Your task to perform on an android device: Is it going to rain tomorrow? Image 0: 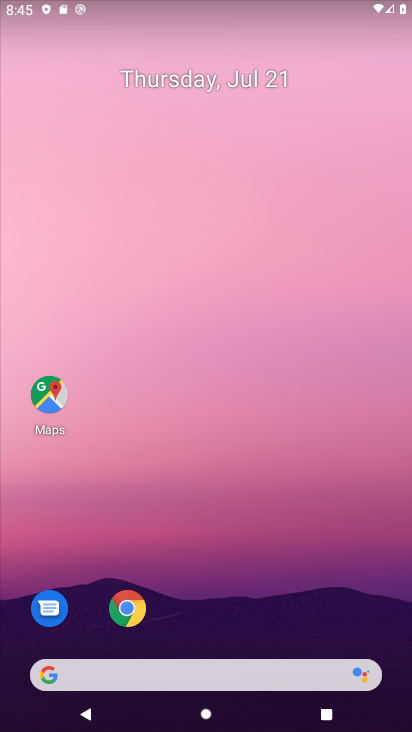
Step 0: click (130, 603)
Your task to perform on an android device: Is it going to rain tomorrow? Image 1: 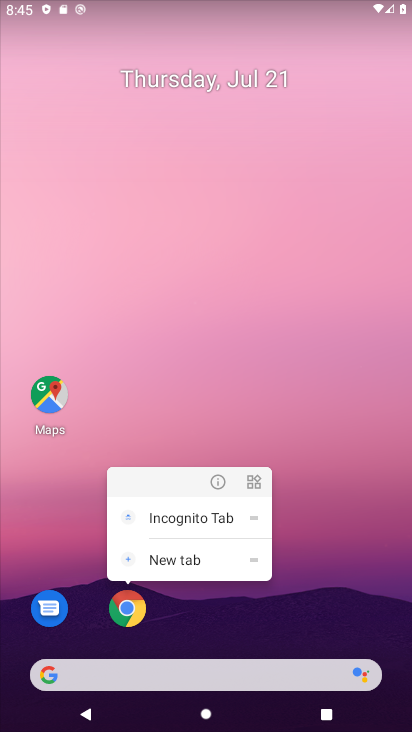
Step 1: click (136, 601)
Your task to perform on an android device: Is it going to rain tomorrow? Image 2: 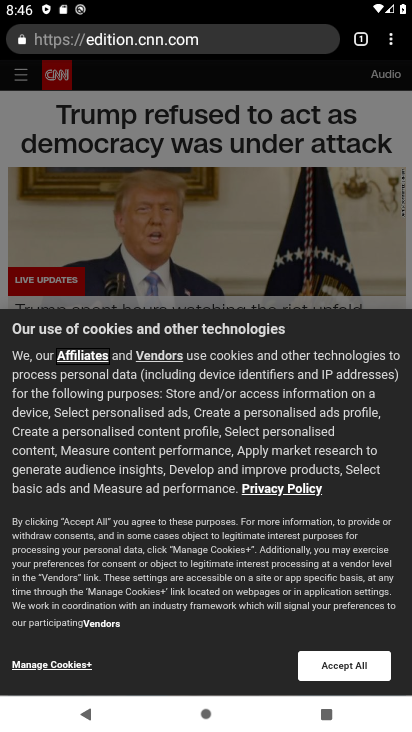
Step 2: click (206, 47)
Your task to perform on an android device: Is it going to rain tomorrow? Image 3: 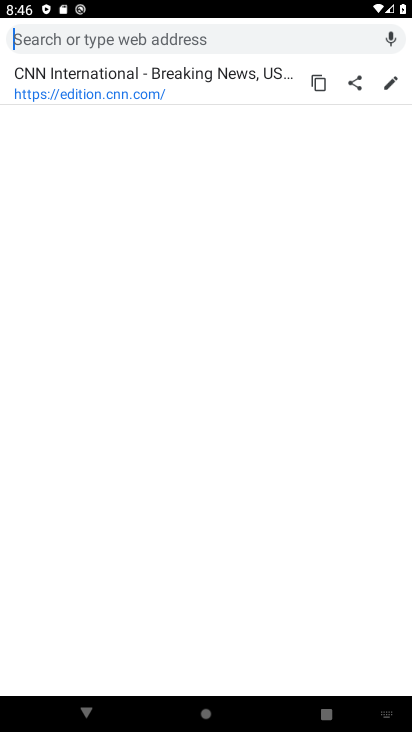
Step 3: type "Is it going to rain tomorrow?"
Your task to perform on an android device: Is it going to rain tomorrow? Image 4: 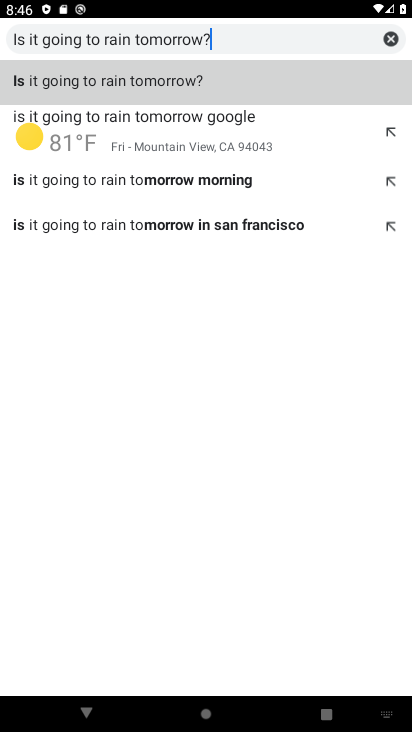
Step 4: click (142, 86)
Your task to perform on an android device: Is it going to rain tomorrow? Image 5: 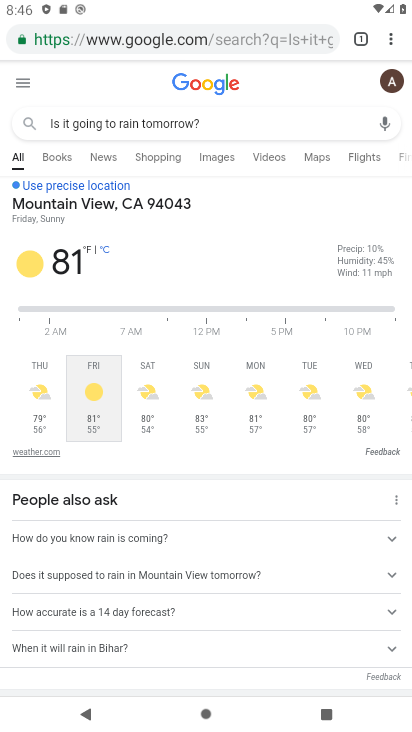
Step 5: task complete